Your task to perform on an android device: Go to Amazon Image 0: 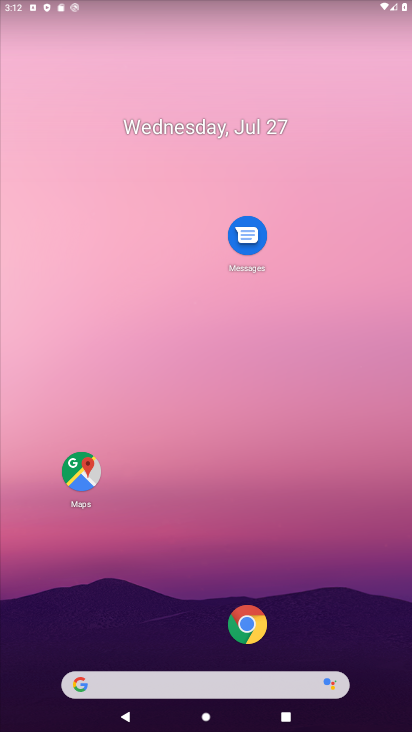
Step 0: click (246, 637)
Your task to perform on an android device: Go to Amazon Image 1: 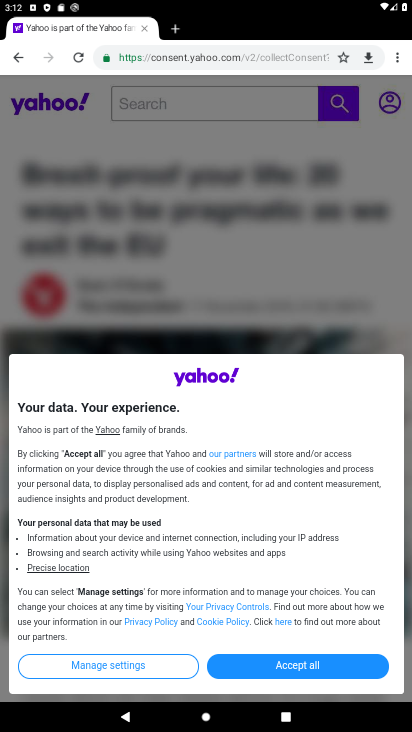
Step 1: click (176, 26)
Your task to perform on an android device: Go to Amazon Image 2: 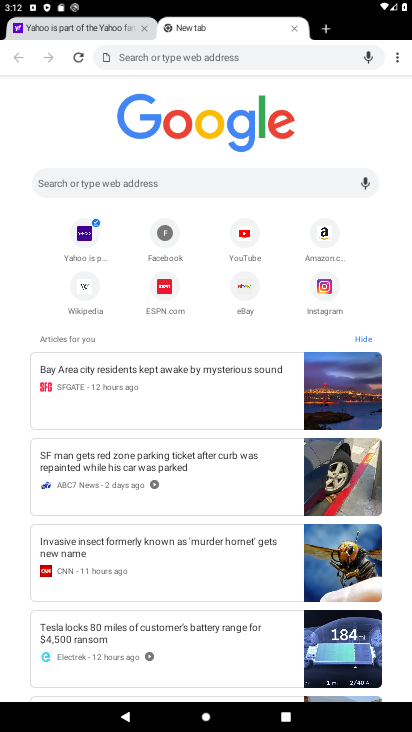
Step 2: click (330, 237)
Your task to perform on an android device: Go to Amazon Image 3: 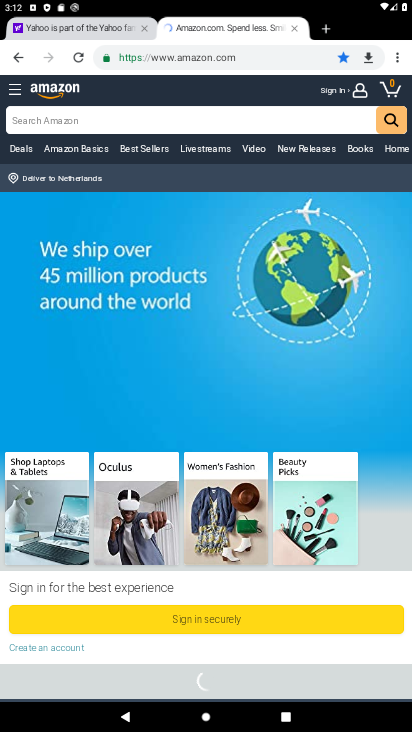
Step 3: task complete